Your task to perform on an android device: Go to sound settings Image 0: 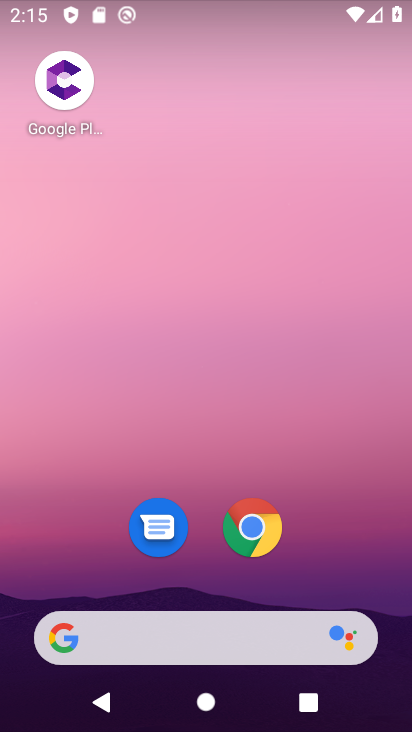
Step 0: drag from (218, 611) to (253, 190)
Your task to perform on an android device: Go to sound settings Image 1: 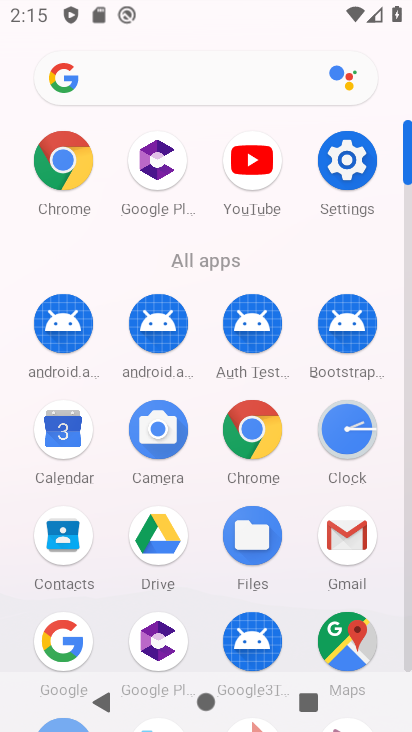
Step 1: click (346, 169)
Your task to perform on an android device: Go to sound settings Image 2: 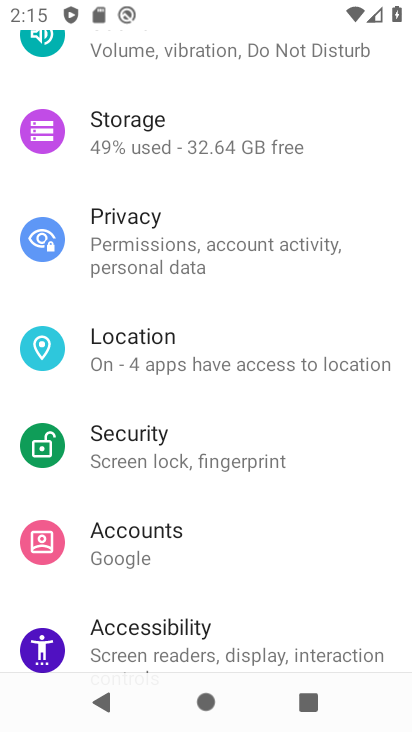
Step 2: drag from (206, 75) to (156, 417)
Your task to perform on an android device: Go to sound settings Image 3: 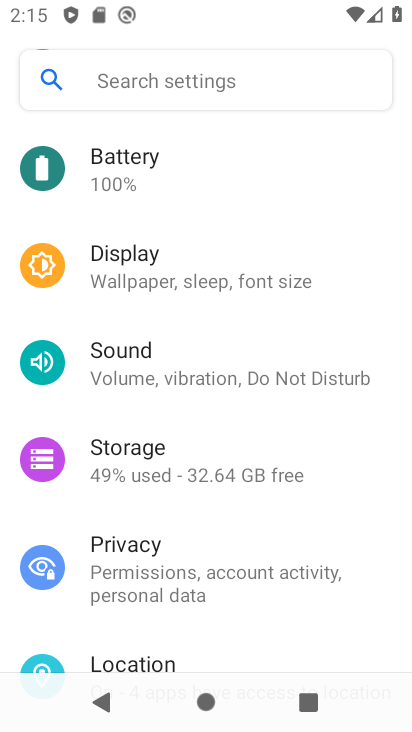
Step 3: click (132, 379)
Your task to perform on an android device: Go to sound settings Image 4: 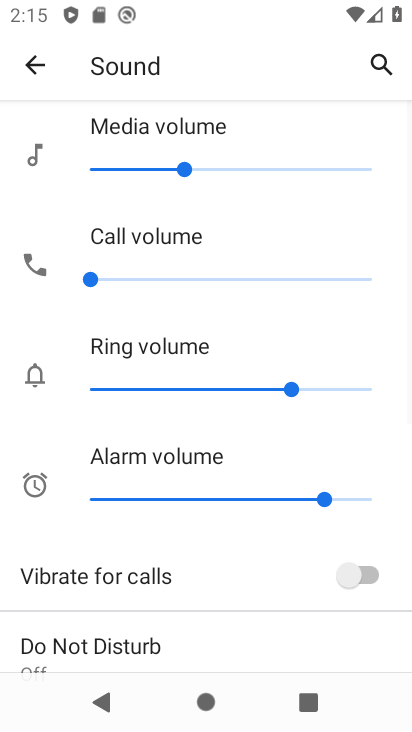
Step 4: task complete